Your task to perform on an android device: Open the map Image 0: 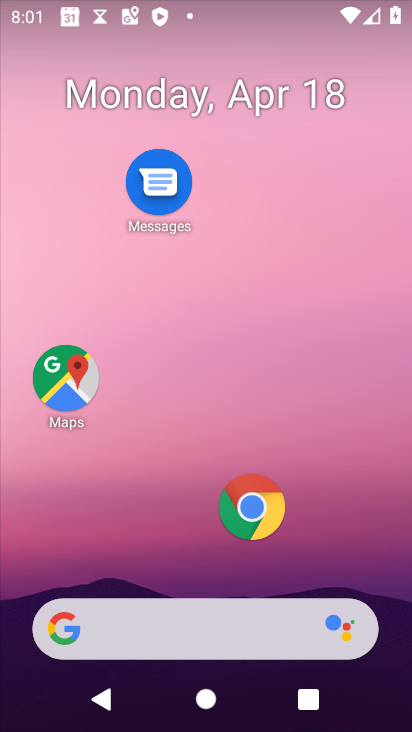
Step 0: click (55, 379)
Your task to perform on an android device: Open the map Image 1: 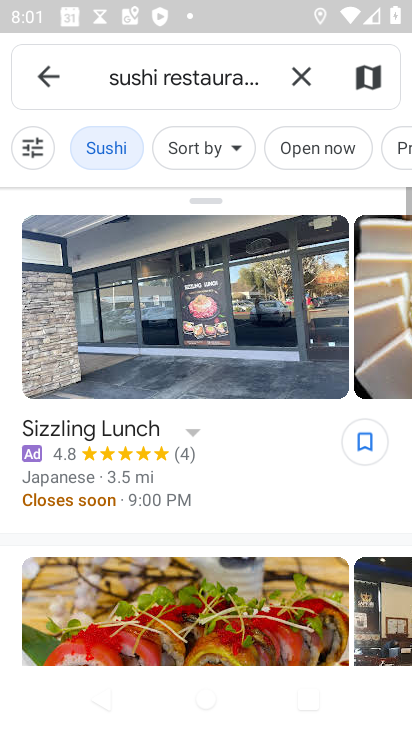
Step 1: click (300, 74)
Your task to perform on an android device: Open the map Image 2: 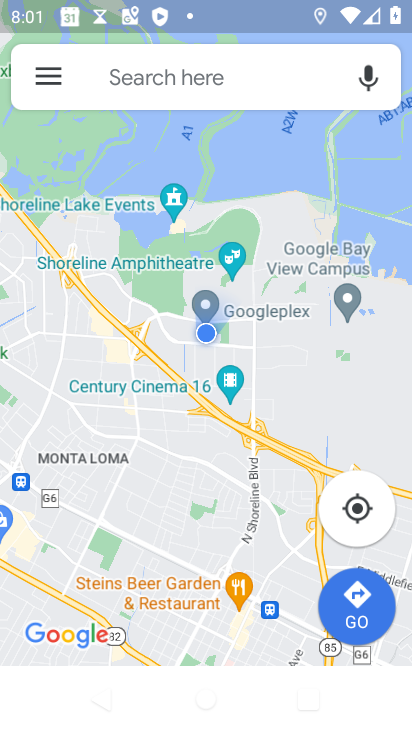
Step 2: task complete